Your task to perform on an android device: clear history in the chrome app Image 0: 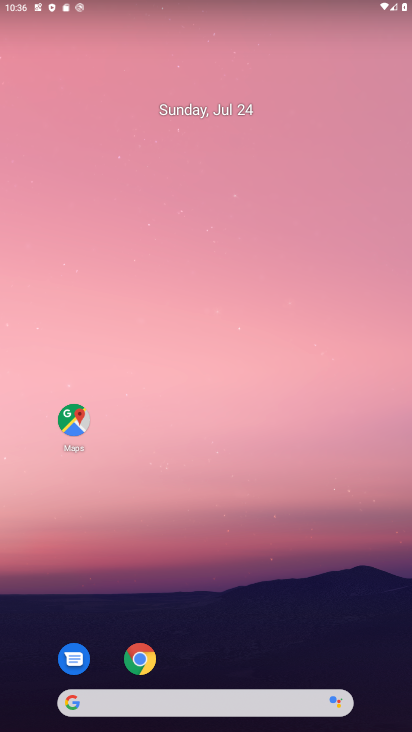
Step 0: click (134, 662)
Your task to perform on an android device: clear history in the chrome app Image 1: 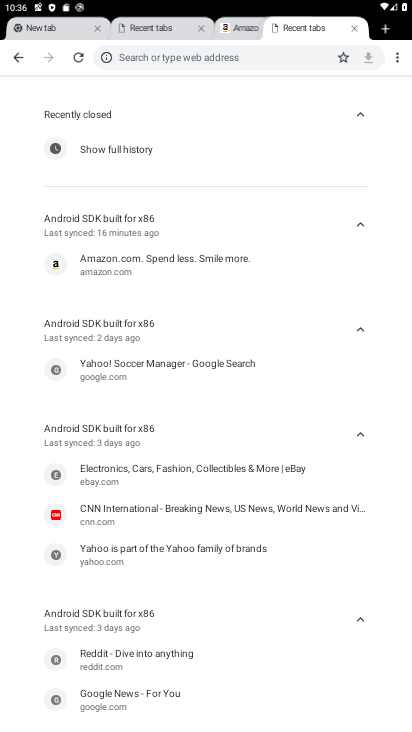
Step 1: click (401, 58)
Your task to perform on an android device: clear history in the chrome app Image 2: 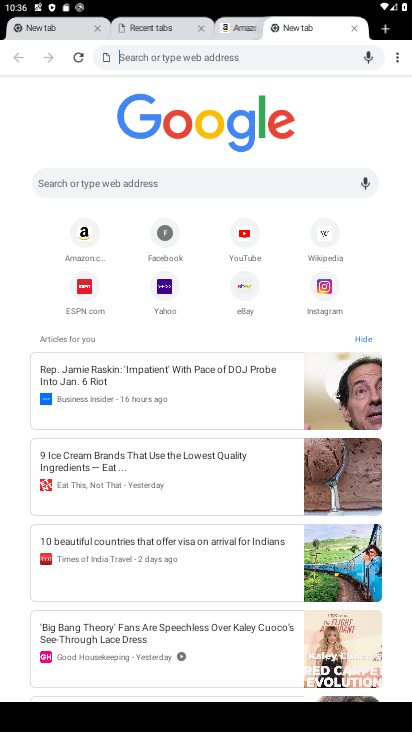
Step 2: click (395, 54)
Your task to perform on an android device: clear history in the chrome app Image 3: 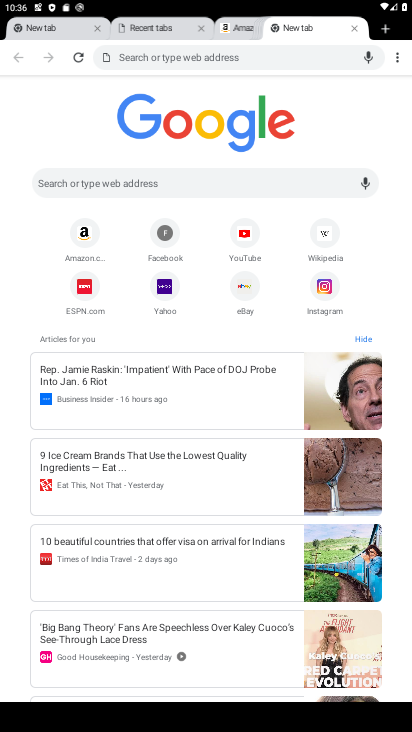
Step 3: click (395, 54)
Your task to perform on an android device: clear history in the chrome app Image 4: 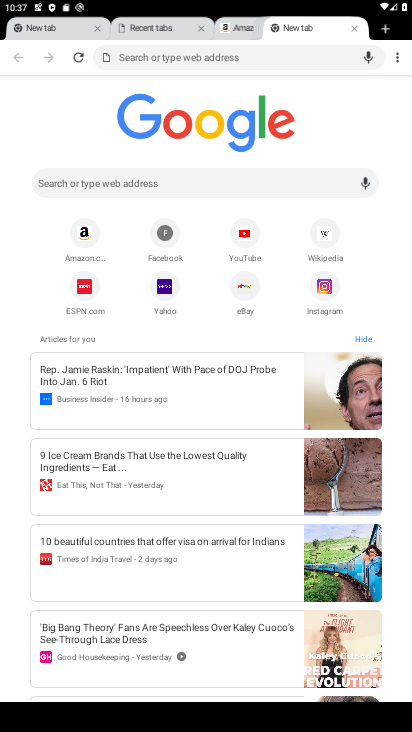
Step 4: click (395, 54)
Your task to perform on an android device: clear history in the chrome app Image 5: 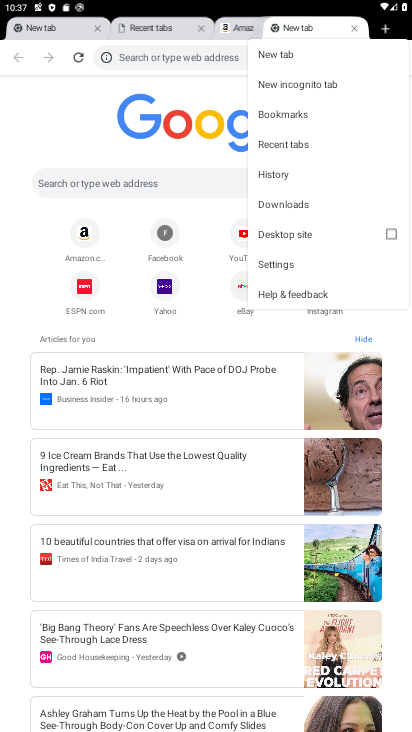
Step 5: click (281, 172)
Your task to perform on an android device: clear history in the chrome app Image 6: 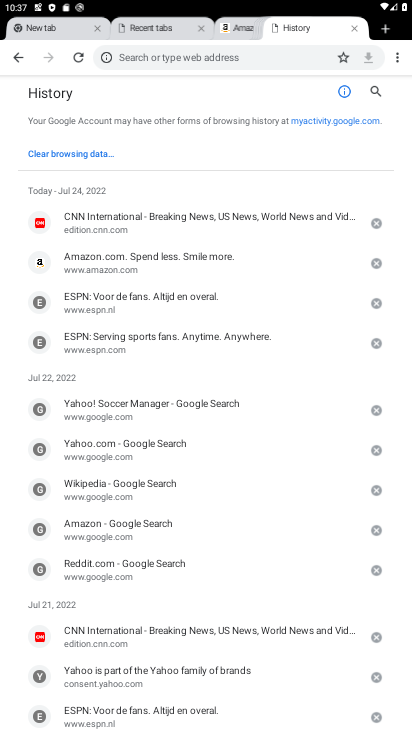
Step 6: click (79, 151)
Your task to perform on an android device: clear history in the chrome app Image 7: 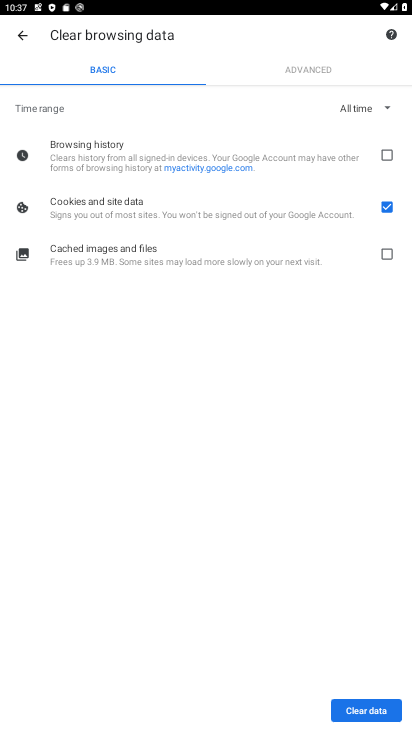
Step 7: click (380, 153)
Your task to perform on an android device: clear history in the chrome app Image 8: 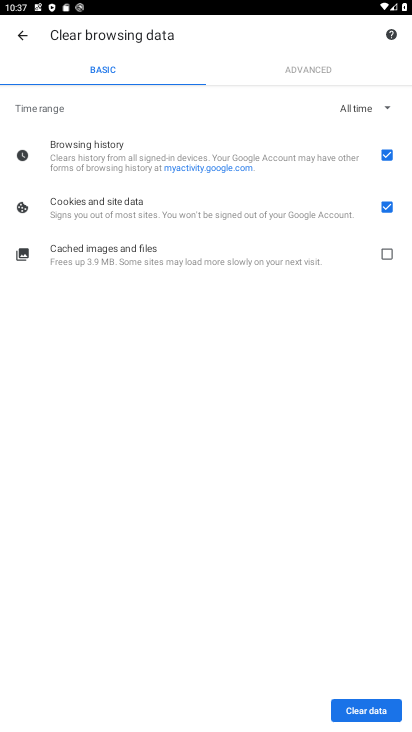
Step 8: click (388, 257)
Your task to perform on an android device: clear history in the chrome app Image 9: 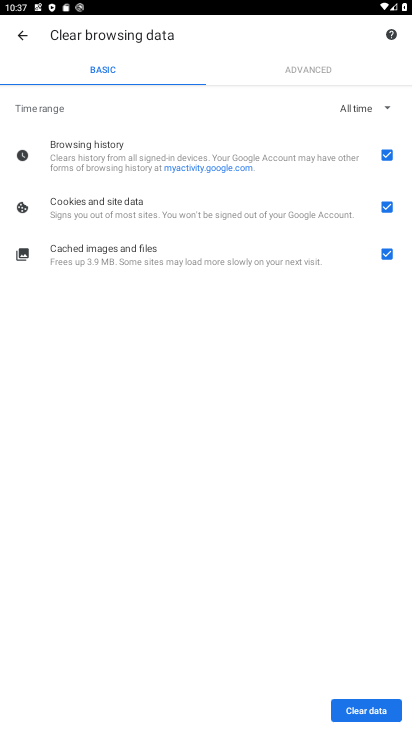
Step 9: task complete